Your task to perform on an android device: move a message to another label in the gmail app Image 0: 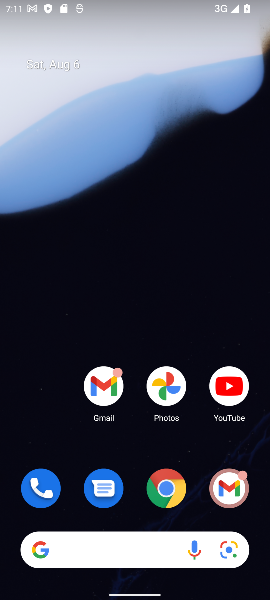
Step 0: click (245, 207)
Your task to perform on an android device: move a message to another label in the gmail app Image 1: 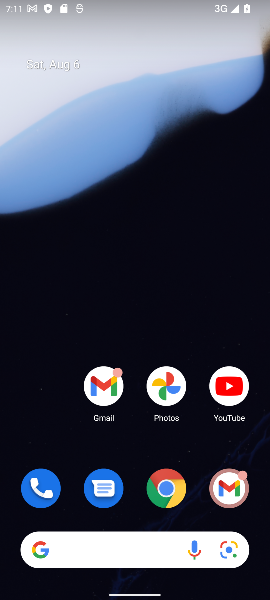
Step 1: click (109, 404)
Your task to perform on an android device: move a message to another label in the gmail app Image 2: 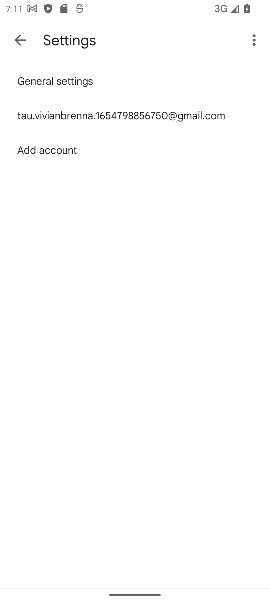
Step 2: click (60, 45)
Your task to perform on an android device: move a message to another label in the gmail app Image 3: 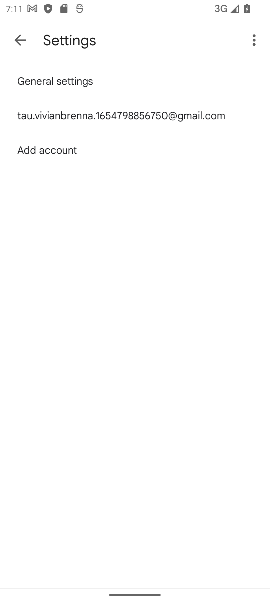
Step 3: click (21, 45)
Your task to perform on an android device: move a message to another label in the gmail app Image 4: 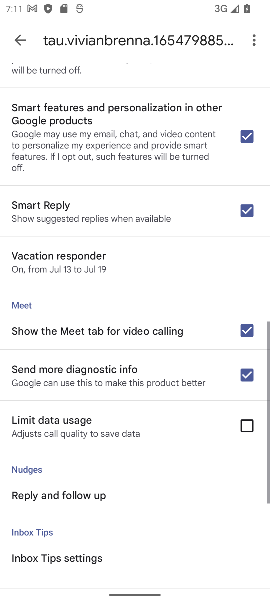
Step 4: click (14, 45)
Your task to perform on an android device: move a message to another label in the gmail app Image 5: 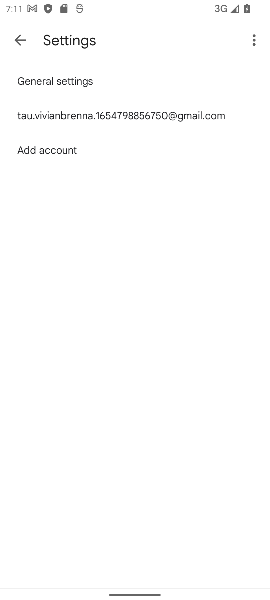
Step 5: click (14, 45)
Your task to perform on an android device: move a message to another label in the gmail app Image 6: 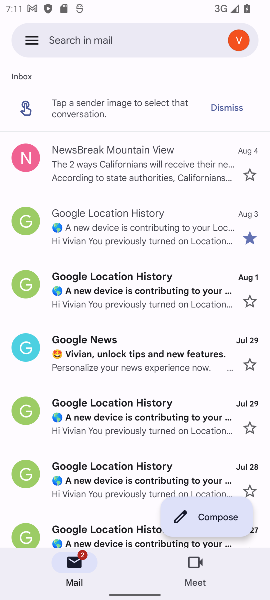
Step 6: click (144, 161)
Your task to perform on an android device: move a message to another label in the gmail app Image 7: 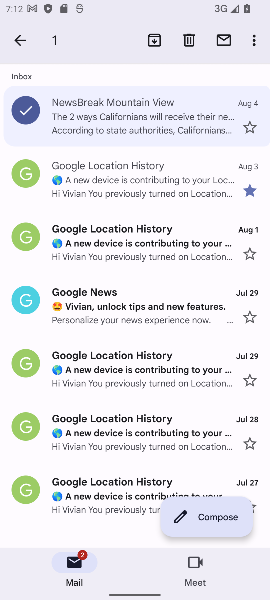
Step 7: click (258, 49)
Your task to perform on an android device: move a message to another label in the gmail app Image 8: 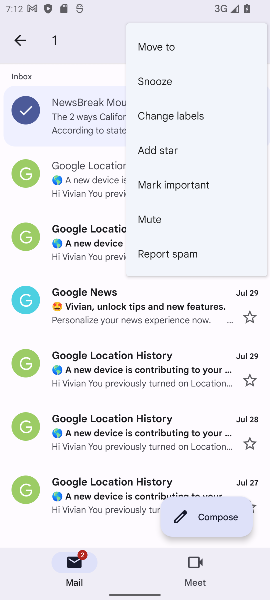
Step 8: click (177, 45)
Your task to perform on an android device: move a message to another label in the gmail app Image 9: 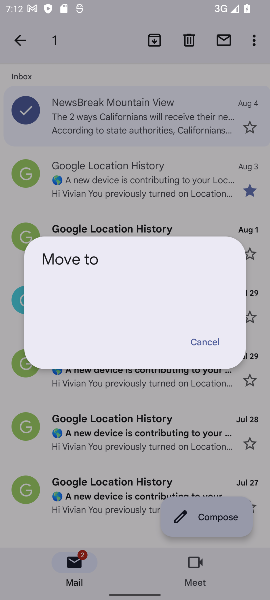
Step 9: click (155, 285)
Your task to perform on an android device: move a message to another label in the gmail app Image 10: 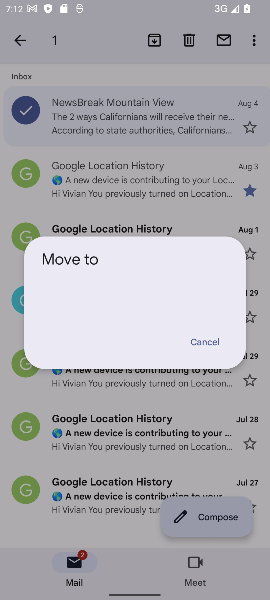
Step 10: click (55, 252)
Your task to perform on an android device: move a message to another label in the gmail app Image 11: 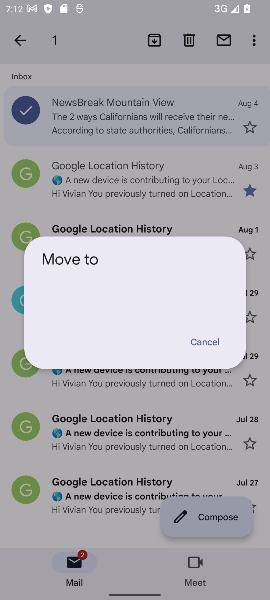
Step 11: click (213, 344)
Your task to perform on an android device: move a message to another label in the gmail app Image 12: 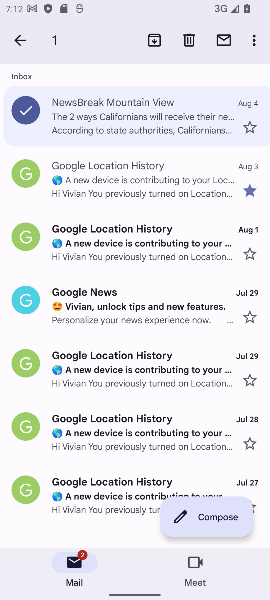
Step 12: click (250, 40)
Your task to perform on an android device: move a message to another label in the gmail app Image 13: 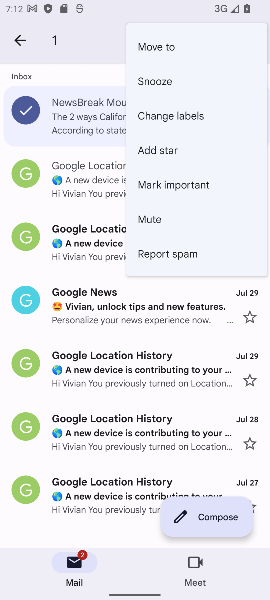
Step 13: click (158, 43)
Your task to perform on an android device: move a message to another label in the gmail app Image 14: 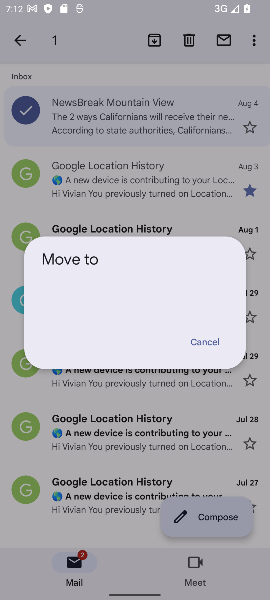
Step 14: click (133, 287)
Your task to perform on an android device: move a message to another label in the gmail app Image 15: 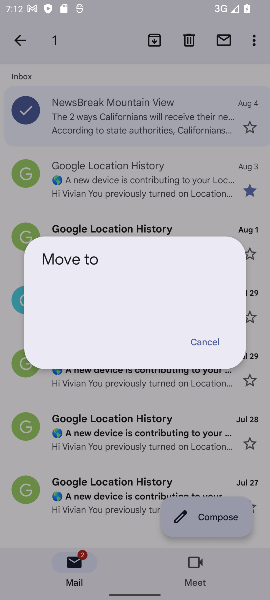
Step 15: task complete